Your task to perform on an android device: Open the calendar app, open the side menu, and click the "Day" option Image 0: 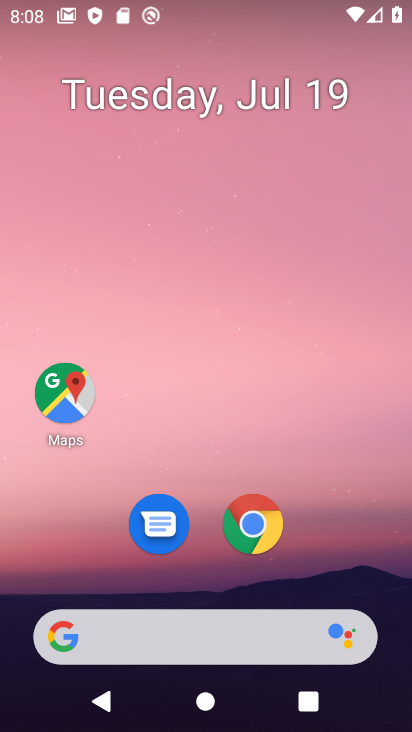
Step 0: drag from (207, 634) to (327, 232)
Your task to perform on an android device: Open the calendar app, open the side menu, and click the "Day" option Image 1: 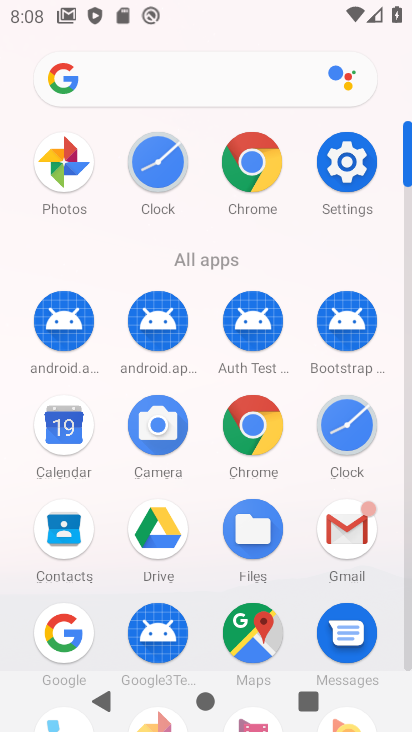
Step 1: click (71, 412)
Your task to perform on an android device: Open the calendar app, open the side menu, and click the "Day" option Image 2: 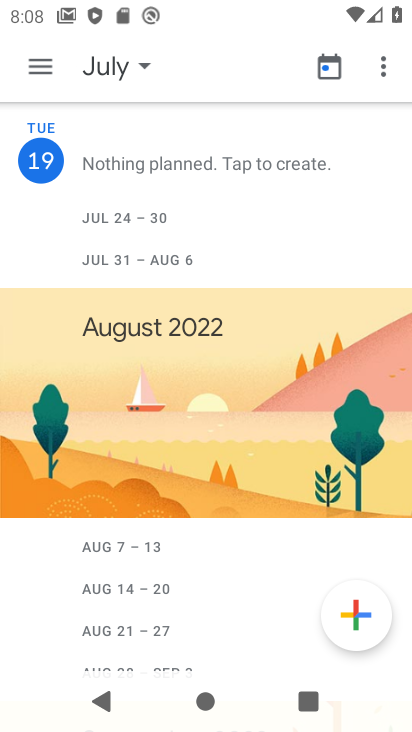
Step 2: click (32, 58)
Your task to perform on an android device: Open the calendar app, open the side menu, and click the "Day" option Image 3: 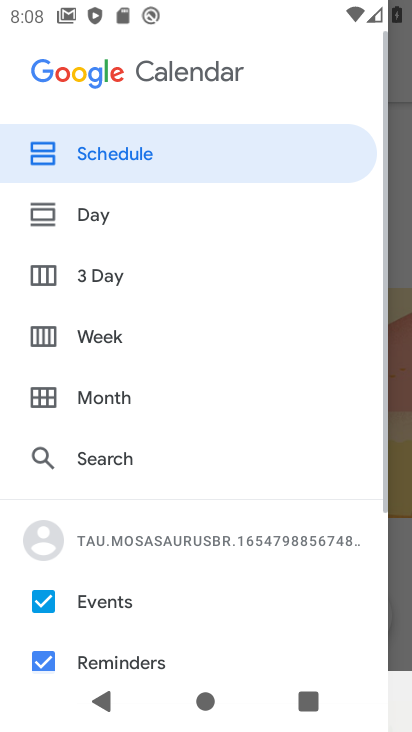
Step 3: click (81, 215)
Your task to perform on an android device: Open the calendar app, open the side menu, and click the "Day" option Image 4: 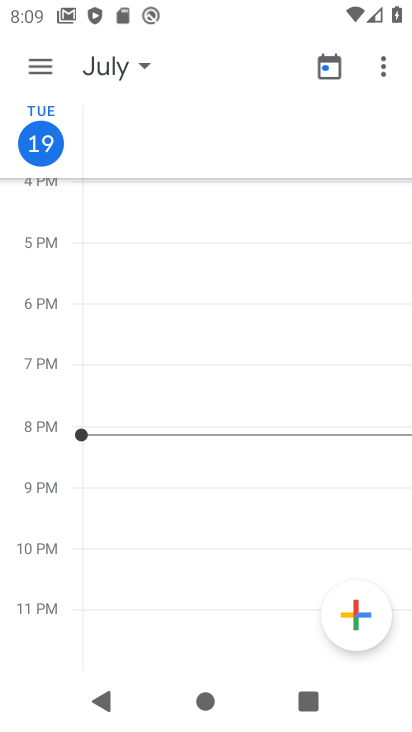
Step 4: task complete